Your task to perform on an android device: Search for vegetarian restaurants on Maps Image 0: 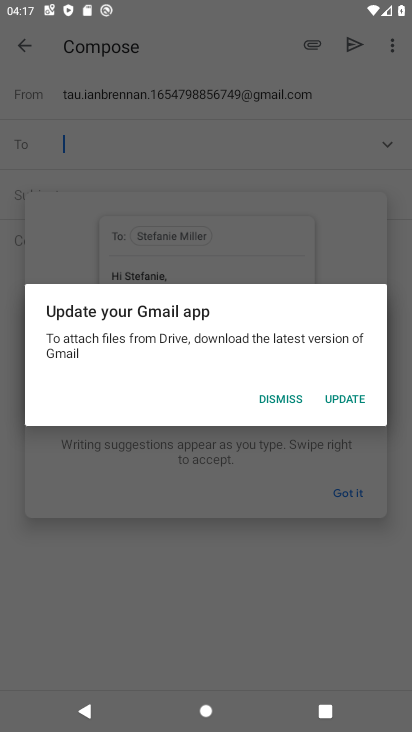
Step 0: press home button
Your task to perform on an android device: Search for vegetarian restaurants on Maps Image 1: 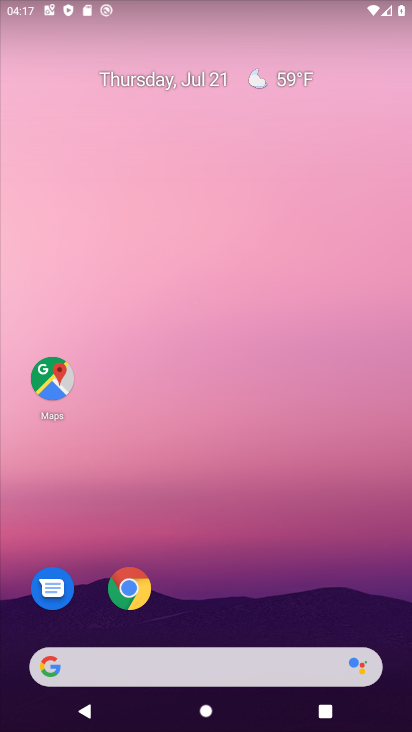
Step 1: click (56, 358)
Your task to perform on an android device: Search for vegetarian restaurants on Maps Image 2: 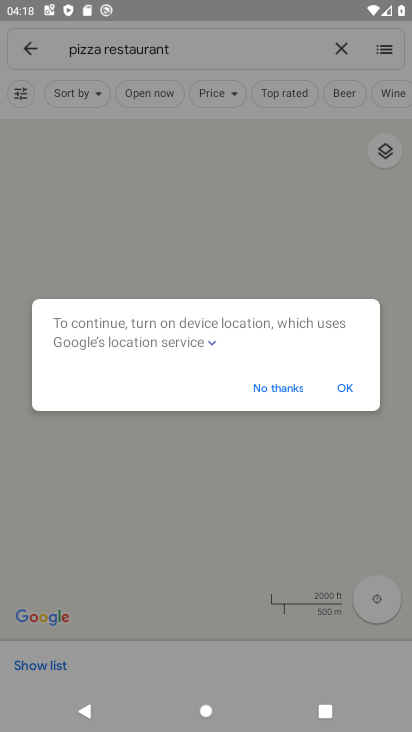
Step 2: click (89, 46)
Your task to perform on an android device: Search for vegetarian restaurants on Maps Image 3: 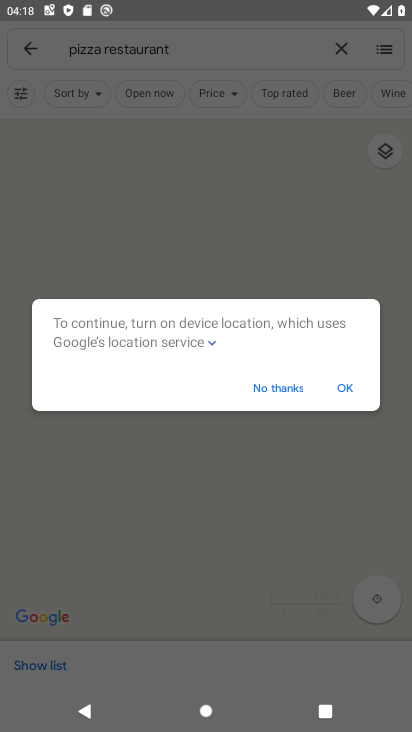
Step 3: click (275, 395)
Your task to perform on an android device: Search for vegetarian restaurants on Maps Image 4: 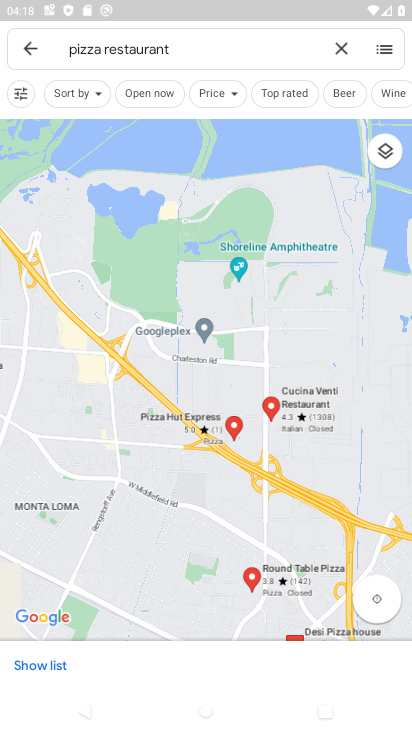
Step 4: click (82, 49)
Your task to perform on an android device: Search for vegetarian restaurants on Maps Image 5: 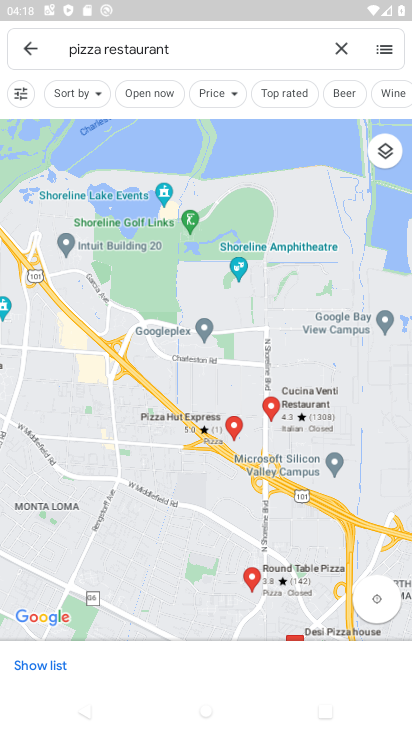
Step 5: click (82, 48)
Your task to perform on an android device: Search for vegetarian restaurants on Maps Image 6: 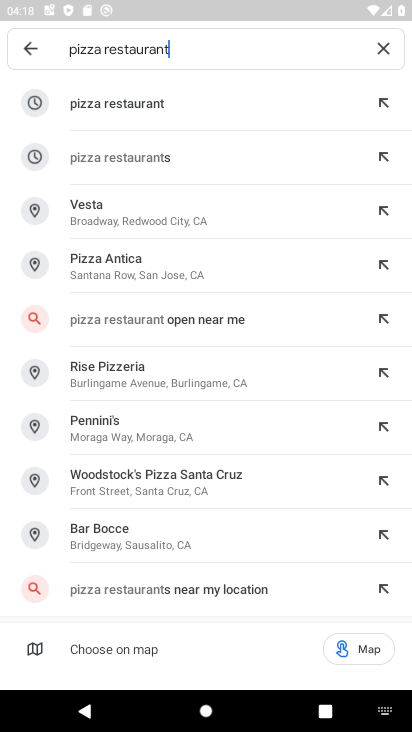
Step 6: click (89, 51)
Your task to perform on an android device: Search for vegetarian restaurants on Maps Image 7: 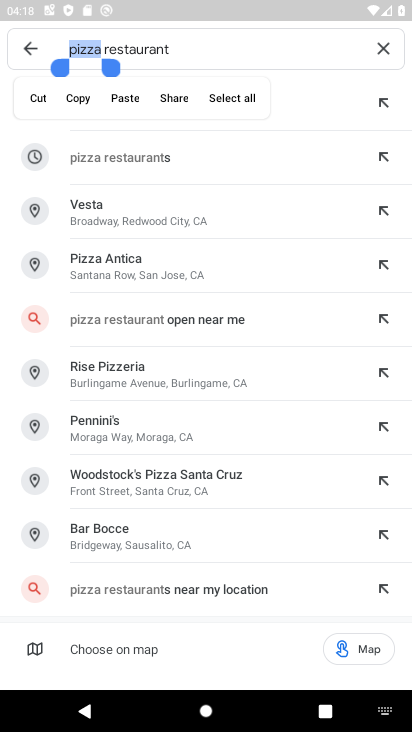
Step 7: type "Vegetarian"
Your task to perform on an android device: Search for vegetarian restaurants on Maps Image 8: 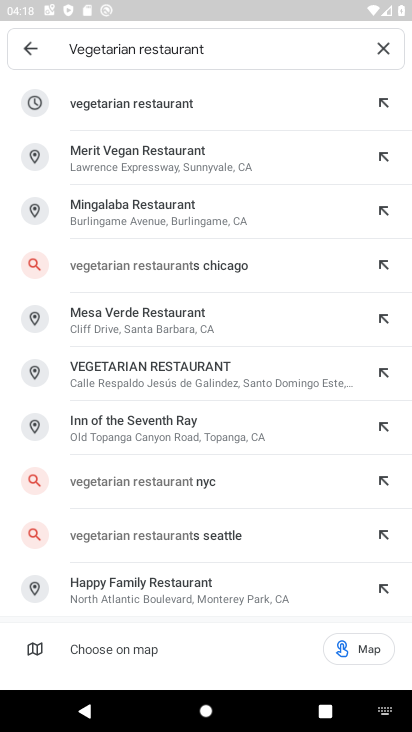
Step 8: click (156, 105)
Your task to perform on an android device: Search for vegetarian restaurants on Maps Image 9: 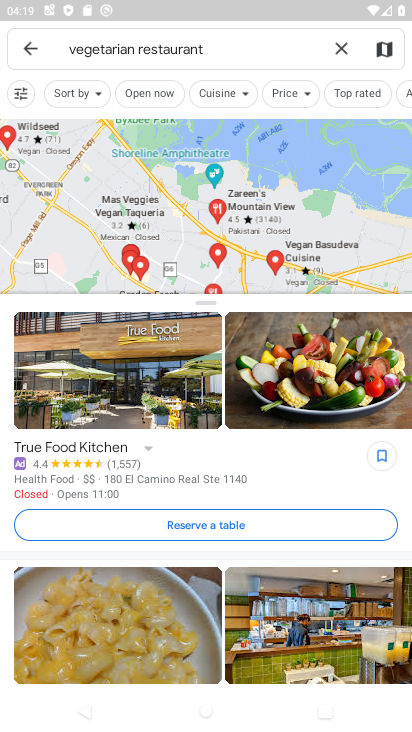
Step 9: task complete